Your task to perform on an android device: turn off location Image 0: 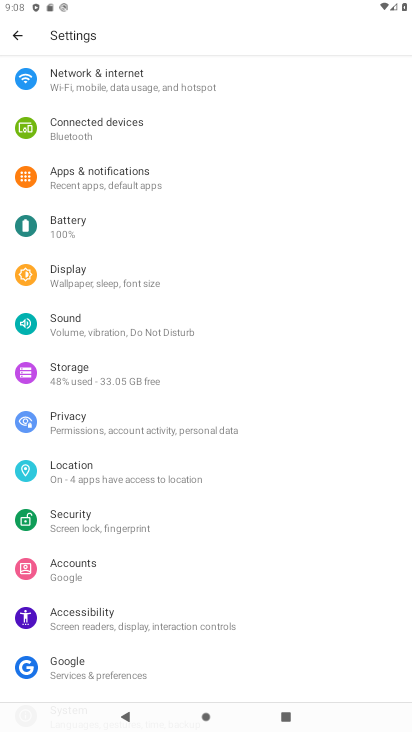
Step 0: press home button
Your task to perform on an android device: turn off location Image 1: 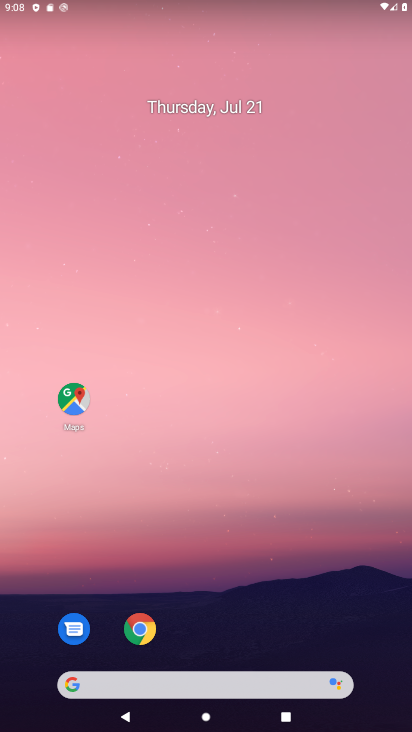
Step 1: drag from (274, 602) to (300, 169)
Your task to perform on an android device: turn off location Image 2: 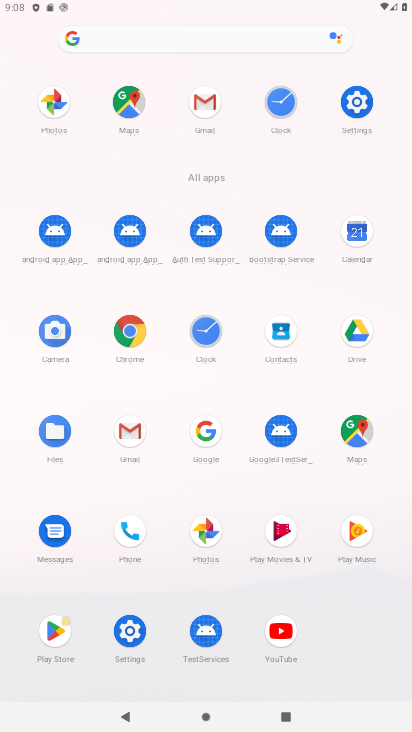
Step 2: click (357, 100)
Your task to perform on an android device: turn off location Image 3: 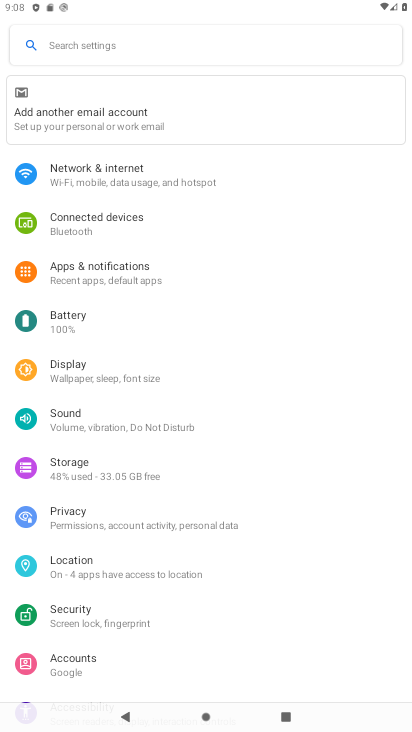
Step 3: click (99, 567)
Your task to perform on an android device: turn off location Image 4: 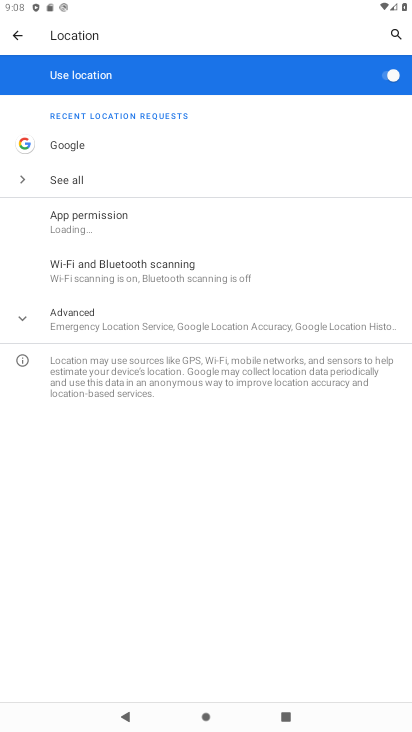
Step 4: click (390, 74)
Your task to perform on an android device: turn off location Image 5: 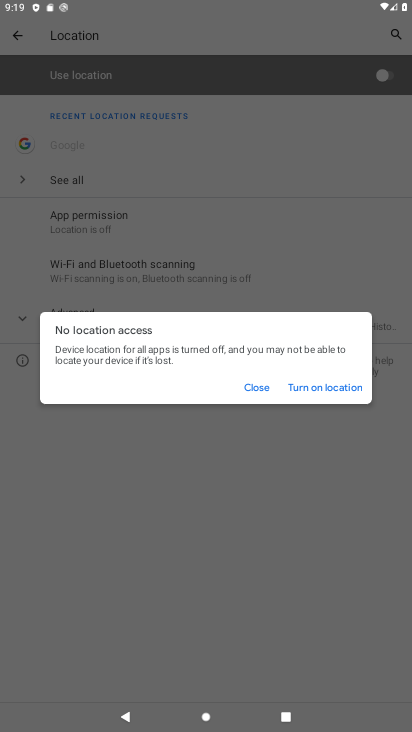
Step 5: press home button
Your task to perform on an android device: turn off location Image 6: 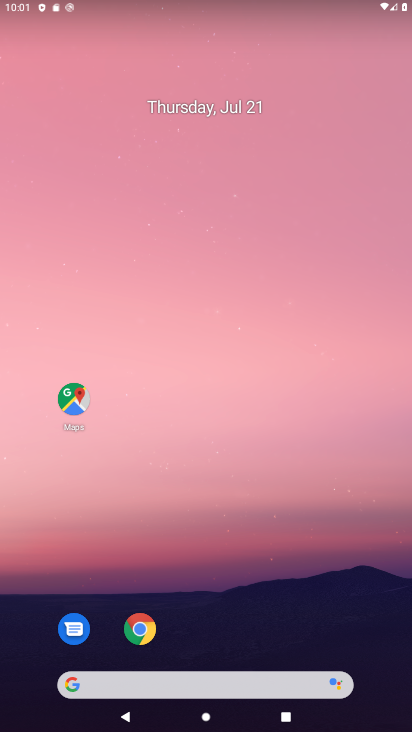
Step 6: press home button
Your task to perform on an android device: turn off location Image 7: 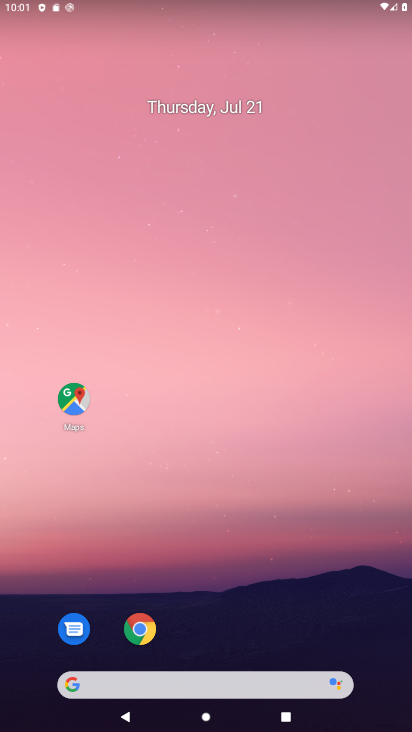
Step 7: drag from (314, 625) to (343, 102)
Your task to perform on an android device: turn off location Image 8: 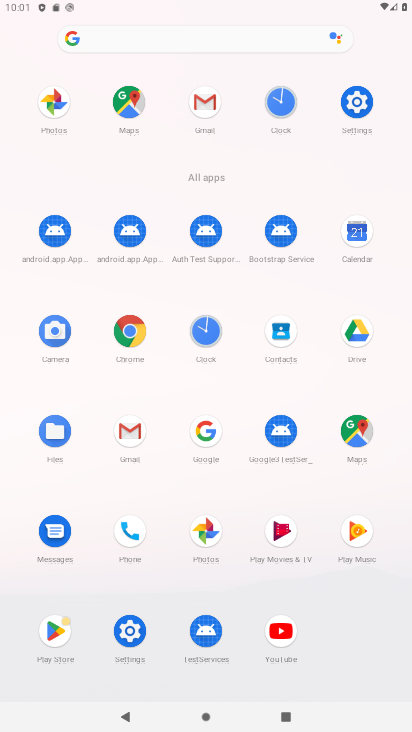
Step 8: click (365, 94)
Your task to perform on an android device: turn off location Image 9: 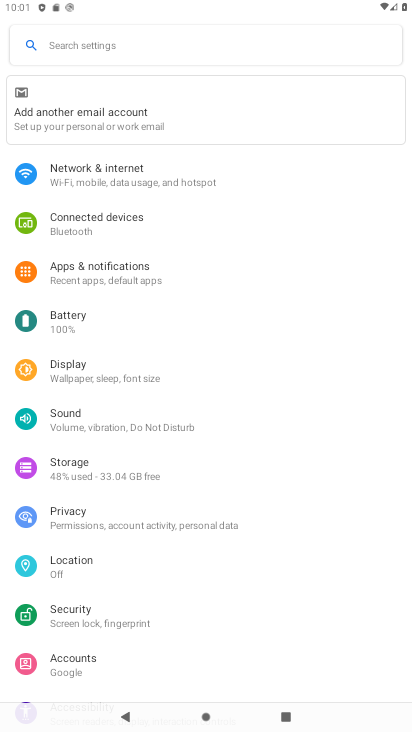
Step 9: click (95, 571)
Your task to perform on an android device: turn off location Image 10: 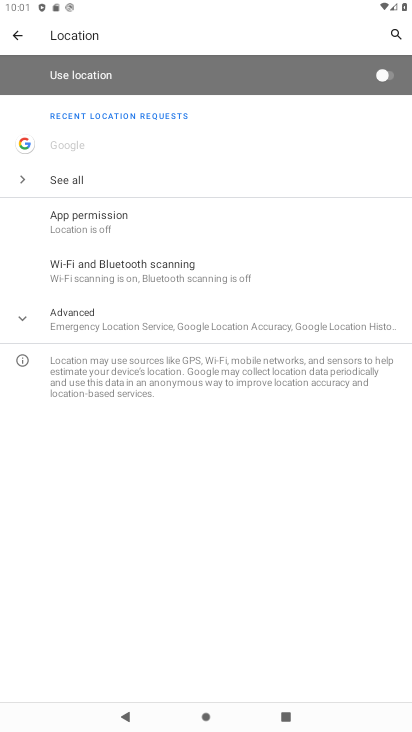
Step 10: task complete